Your task to perform on an android device: Open notification settings Image 0: 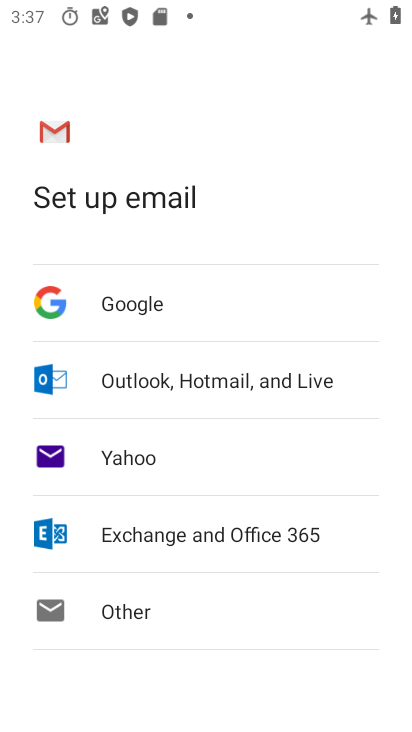
Step 0: press home button
Your task to perform on an android device: Open notification settings Image 1: 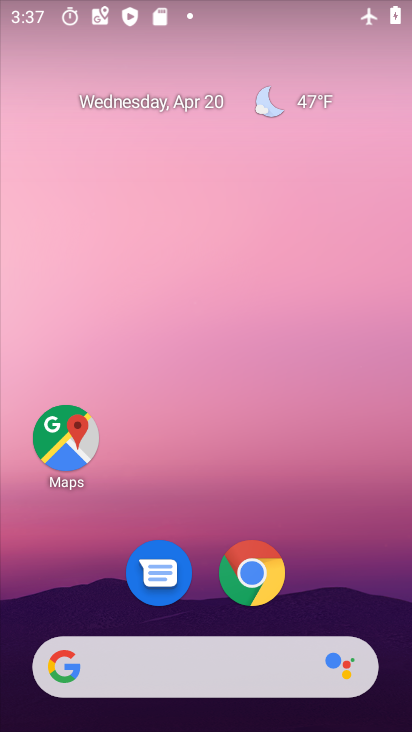
Step 1: drag from (199, 711) to (200, 178)
Your task to perform on an android device: Open notification settings Image 2: 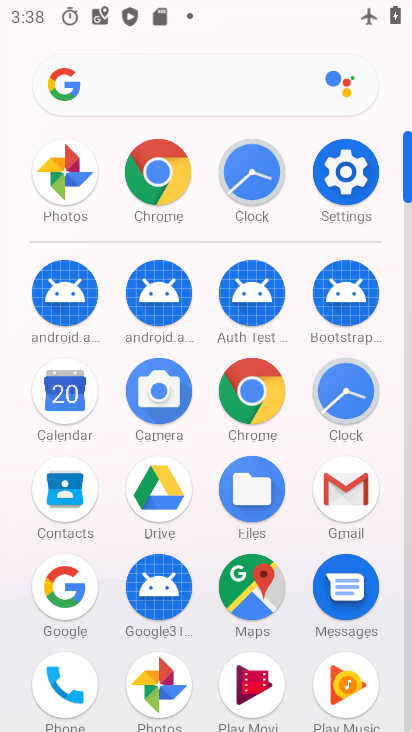
Step 2: click (345, 175)
Your task to perform on an android device: Open notification settings Image 3: 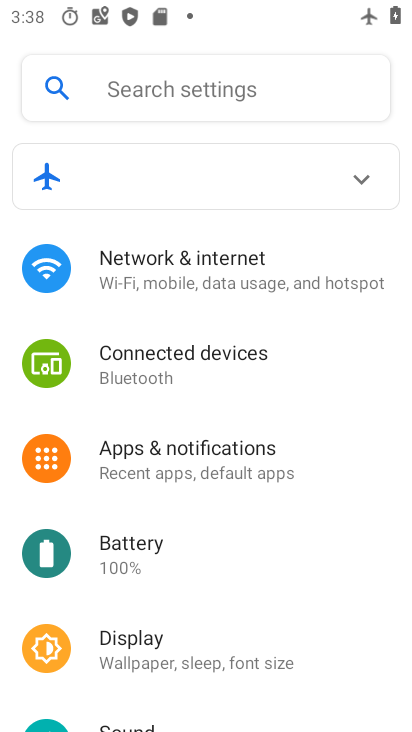
Step 3: click (189, 446)
Your task to perform on an android device: Open notification settings Image 4: 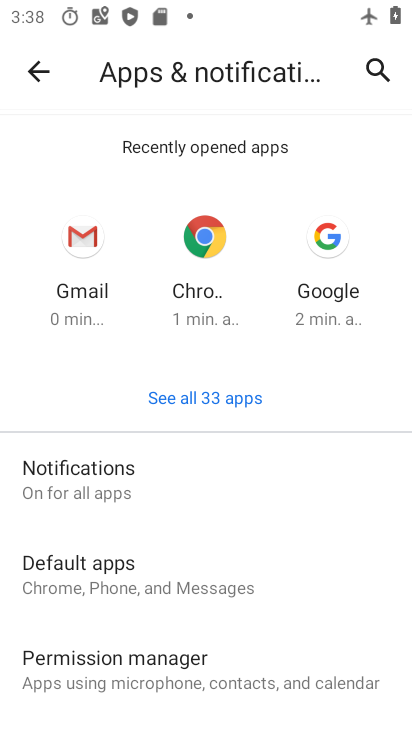
Step 4: click (90, 472)
Your task to perform on an android device: Open notification settings Image 5: 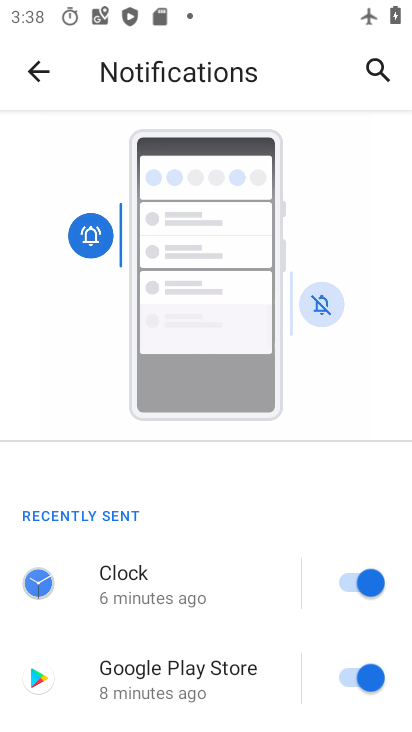
Step 5: task complete